Your task to perform on an android device: Open sound settings Image 0: 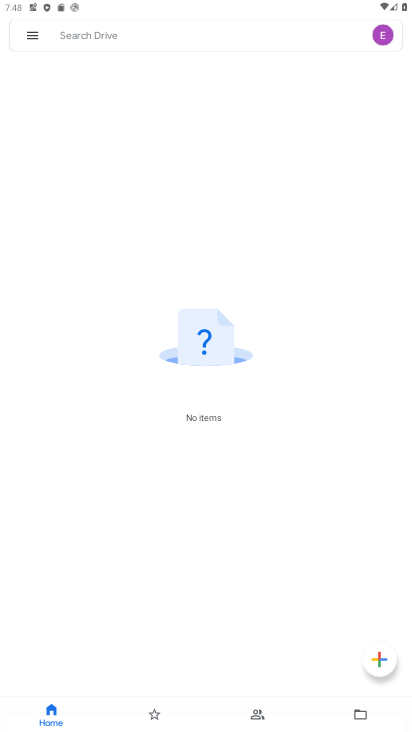
Step 0: press home button
Your task to perform on an android device: Open sound settings Image 1: 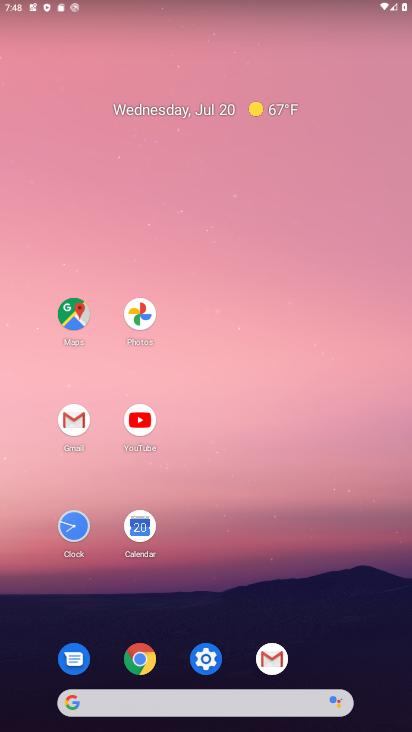
Step 1: click (210, 664)
Your task to perform on an android device: Open sound settings Image 2: 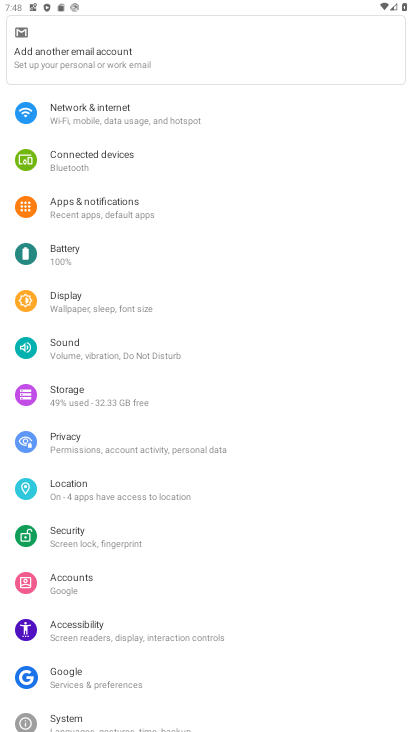
Step 2: click (61, 339)
Your task to perform on an android device: Open sound settings Image 3: 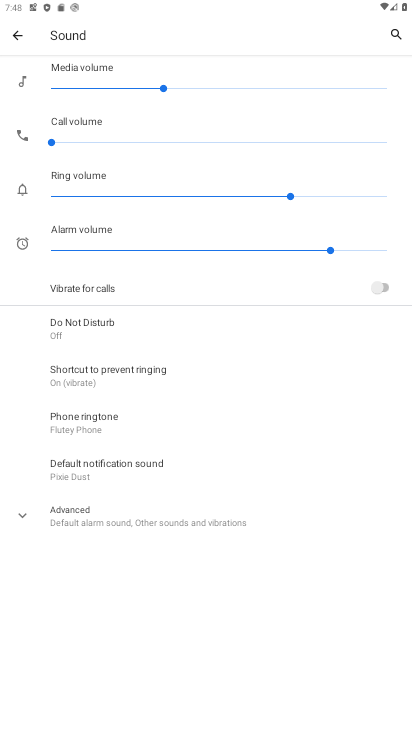
Step 3: task complete